Your task to perform on an android device: show emergency info Image 0: 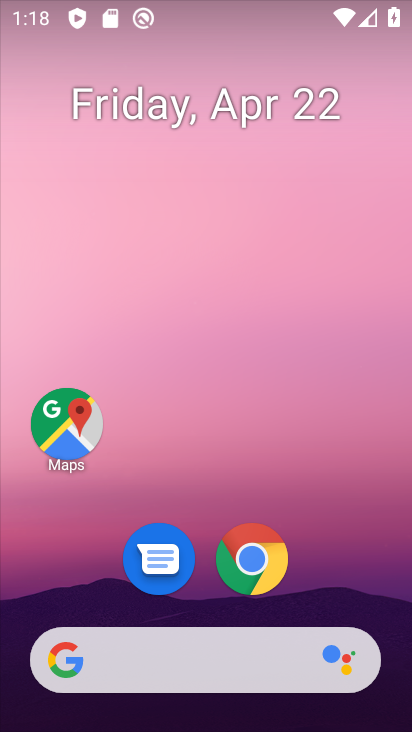
Step 0: drag from (309, 450) to (286, 61)
Your task to perform on an android device: show emergency info Image 1: 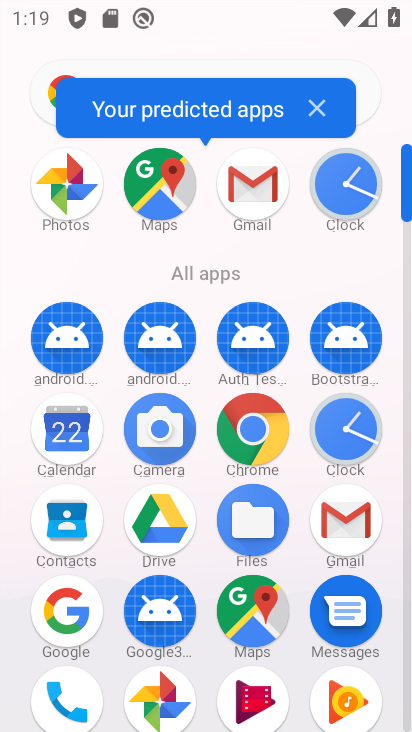
Step 1: drag from (209, 278) to (192, 17)
Your task to perform on an android device: show emergency info Image 2: 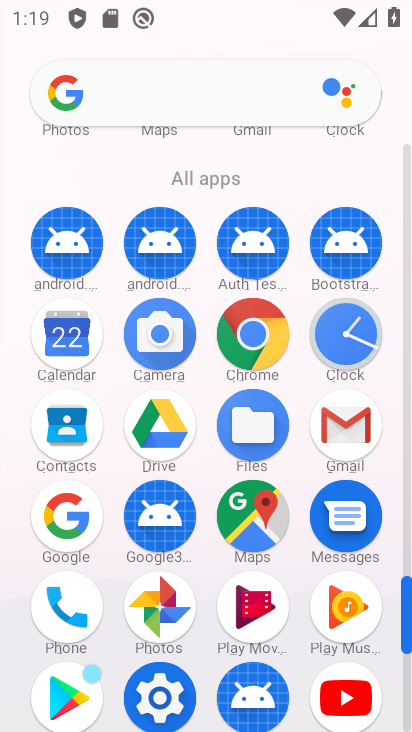
Step 2: click (171, 683)
Your task to perform on an android device: show emergency info Image 3: 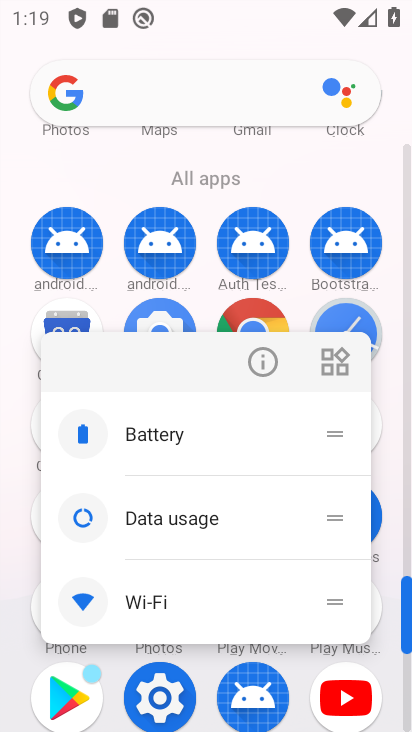
Step 3: click (165, 701)
Your task to perform on an android device: show emergency info Image 4: 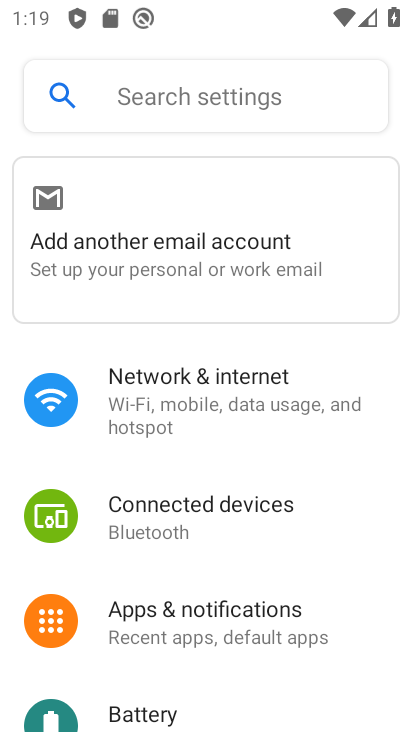
Step 4: drag from (253, 648) to (221, 68)
Your task to perform on an android device: show emergency info Image 5: 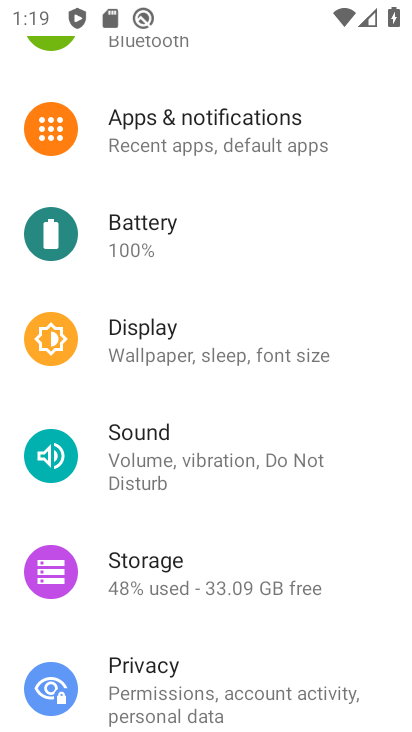
Step 5: drag from (202, 645) to (187, 158)
Your task to perform on an android device: show emergency info Image 6: 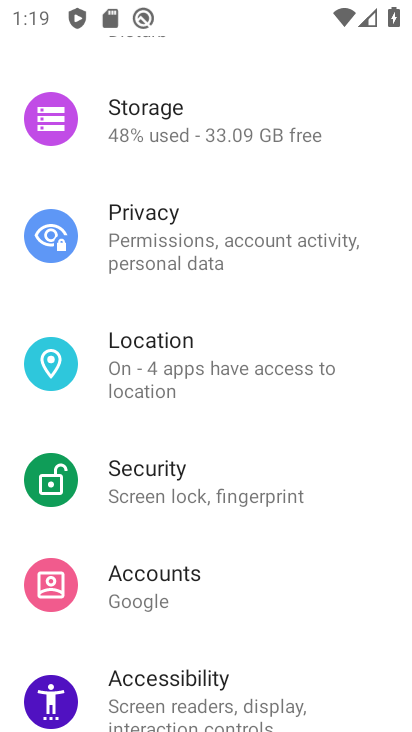
Step 6: drag from (154, 651) to (139, 200)
Your task to perform on an android device: show emergency info Image 7: 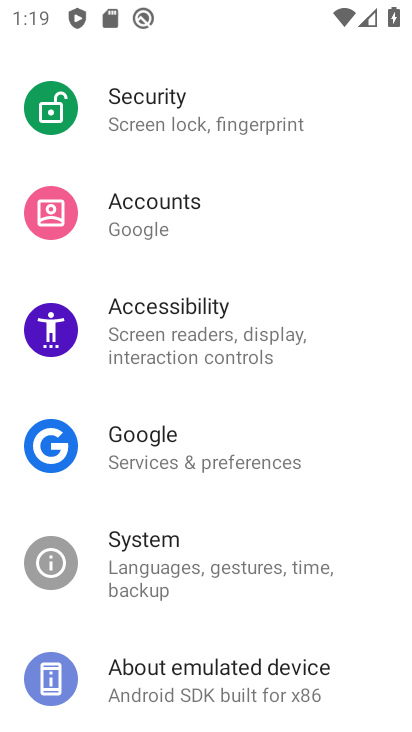
Step 7: drag from (141, 616) to (145, 296)
Your task to perform on an android device: show emergency info Image 8: 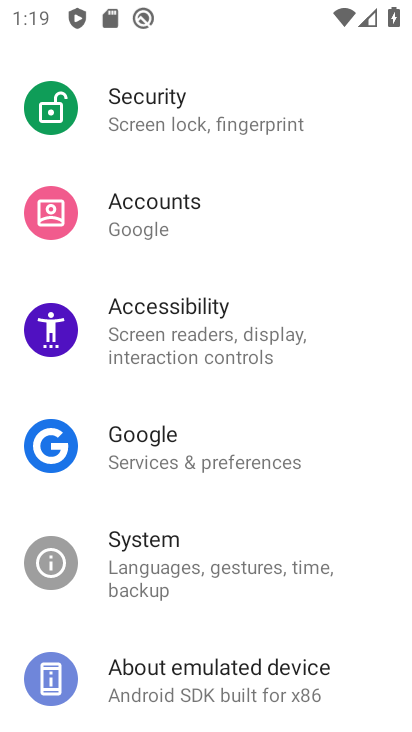
Step 8: drag from (149, 660) to (164, 246)
Your task to perform on an android device: show emergency info Image 9: 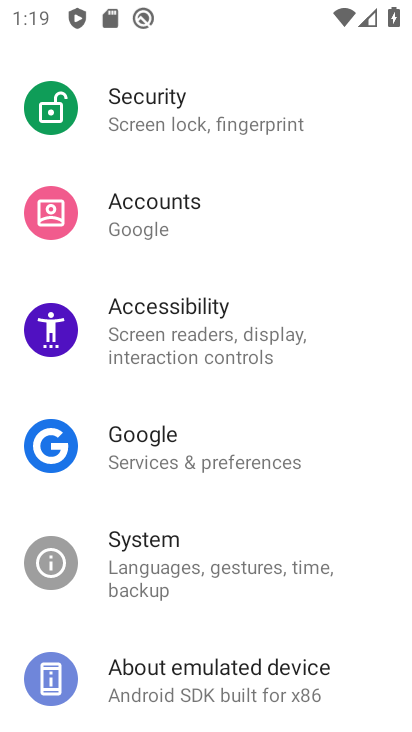
Step 9: click (149, 674)
Your task to perform on an android device: show emergency info Image 10: 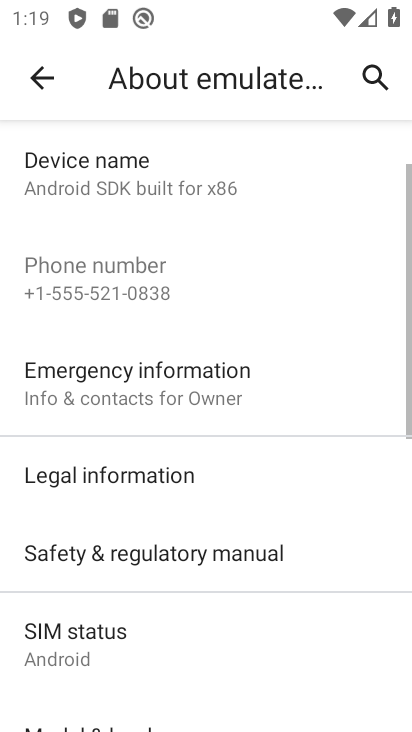
Step 10: drag from (193, 623) to (197, 439)
Your task to perform on an android device: show emergency info Image 11: 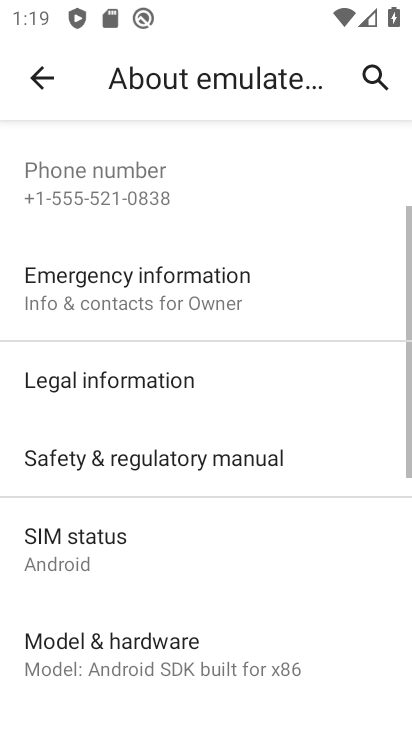
Step 11: click (173, 309)
Your task to perform on an android device: show emergency info Image 12: 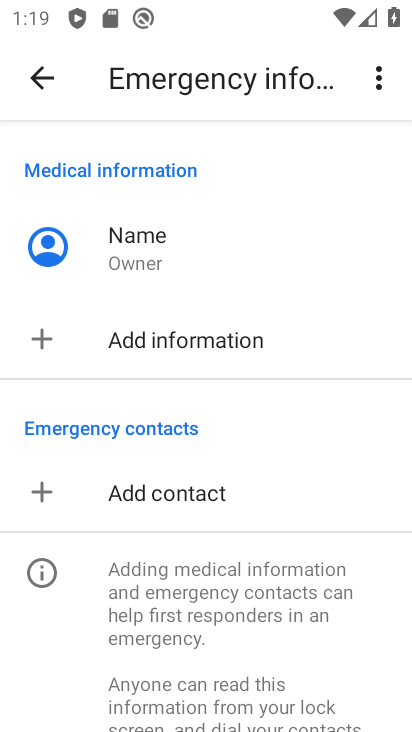
Step 12: task complete